Your task to perform on an android device: see creations saved in the google photos Image 0: 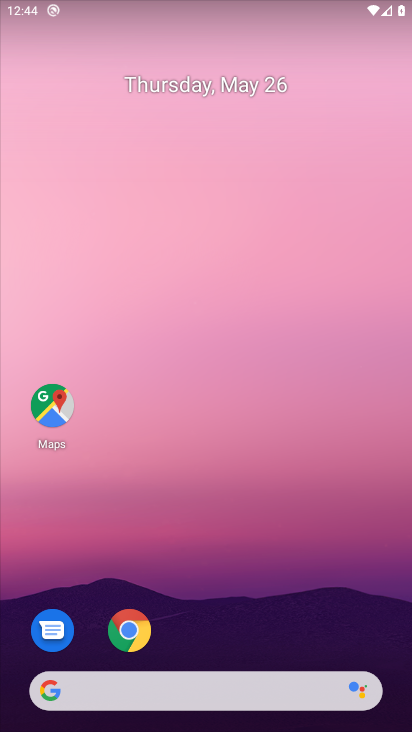
Step 0: press home button
Your task to perform on an android device: see creations saved in the google photos Image 1: 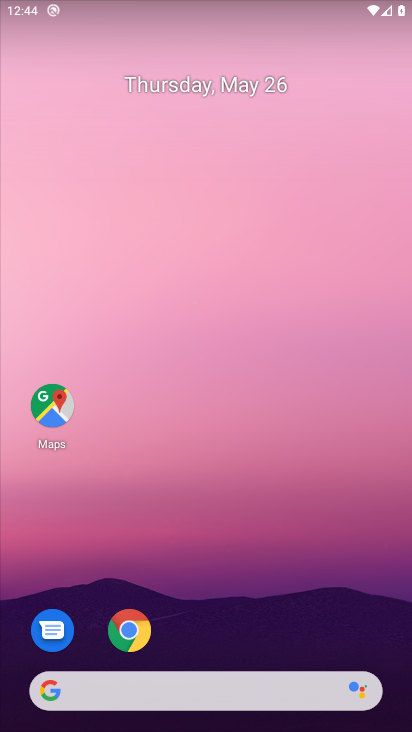
Step 1: drag from (220, 627) to (249, 83)
Your task to perform on an android device: see creations saved in the google photos Image 2: 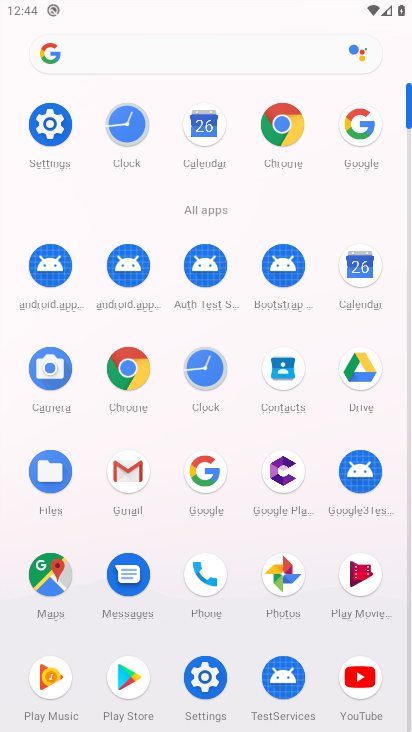
Step 2: click (282, 563)
Your task to perform on an android device: see creations saved in the google photos Image 3: 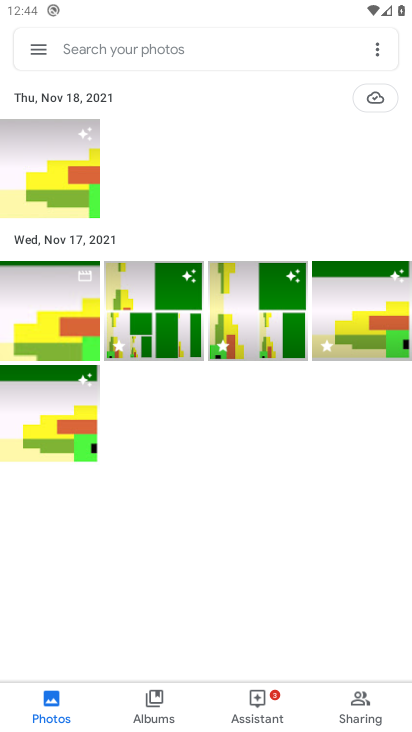
Step 3: click (116, 43)
Your task to perform on an android device: see creations saved in the google photos Image 4: 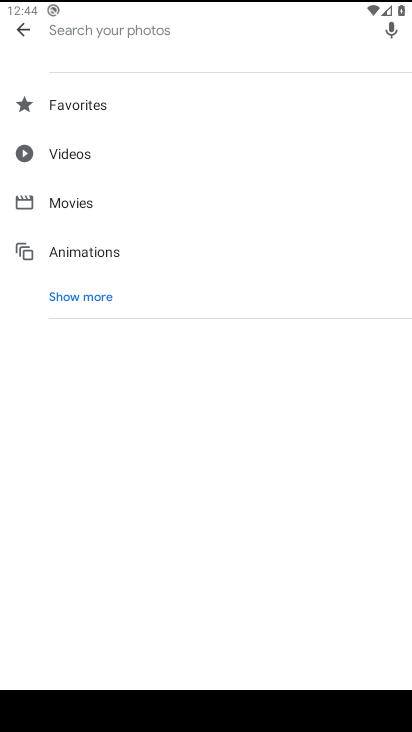
Step 4: click (54, 300)
Your task to perform on an android device: see creations saved in the google photos Image 5: 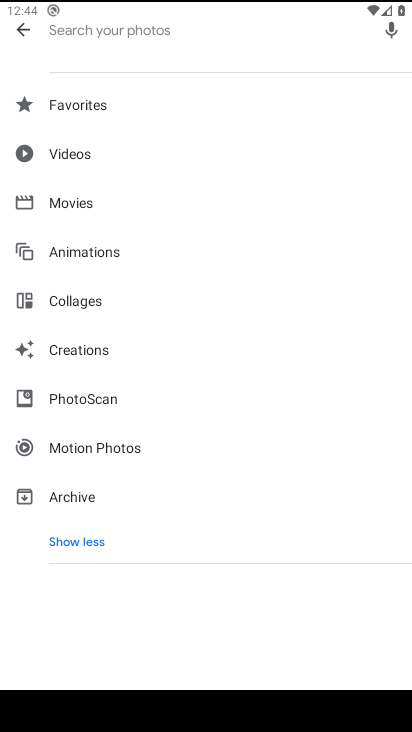
Step 5: click (84, 351)
Your task to perform on an android device: see creations saved in the google photos Image 6: 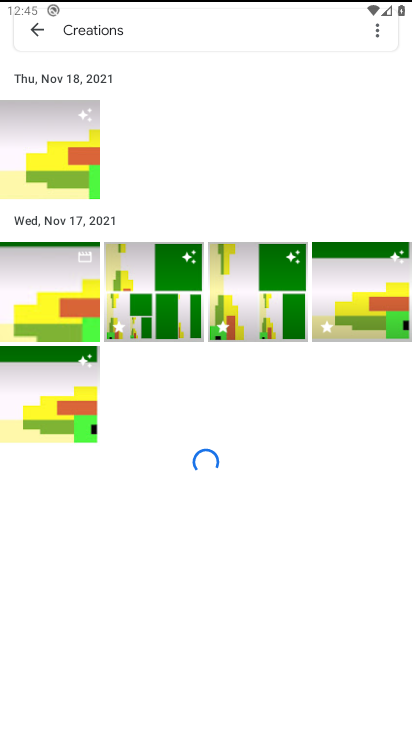
Step 6: task complete